Your task to perform on an android device: open the mobile data screen to see how much data has been used Image 0: 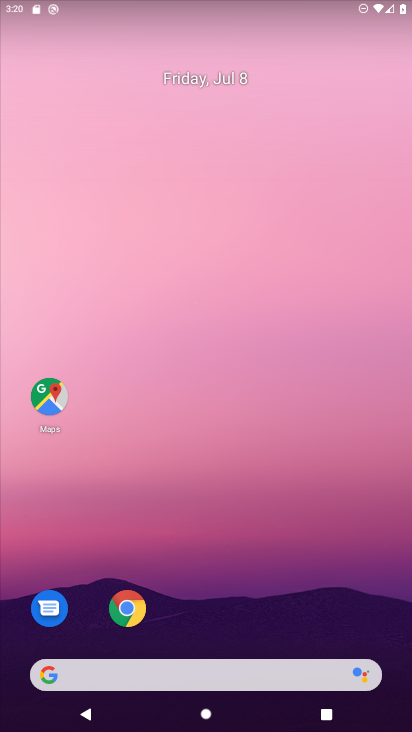
Step 0: drag from (223, 614) to (193, 123)
Your task to perform on an android device: open the mobile data screen to see how much data has been used Image 1: 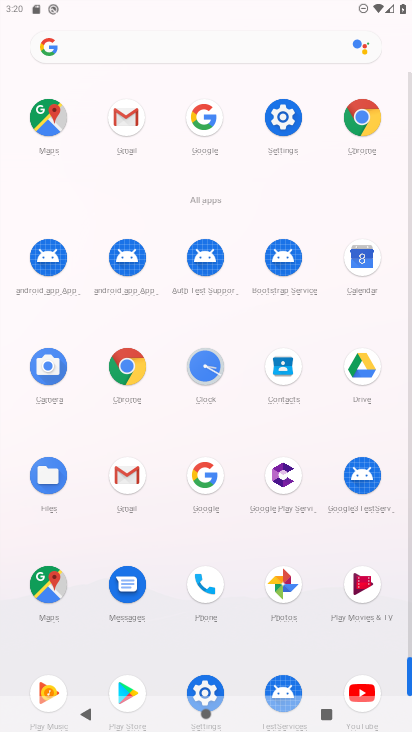
Step 1: drag from (173, 43) to (70, 545)
Your task to perform on an android device: open the mobile data screen to see how much data has been used Image 2: 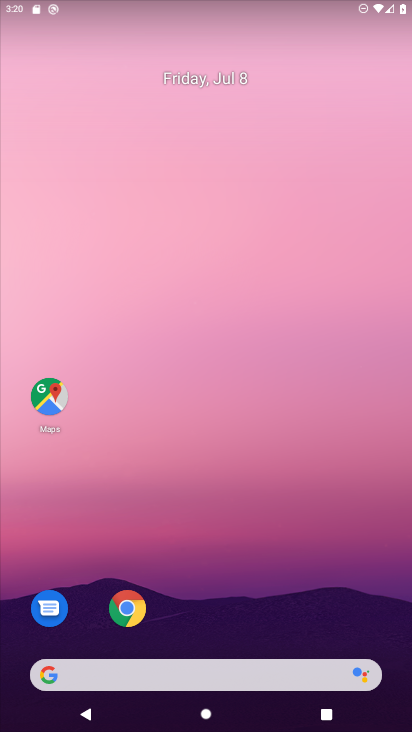
Step 2: drag from (153, 5) to (112, 556)
Your task to perform on an android device: open the mobile data screen to see how much data has been used Image 3: 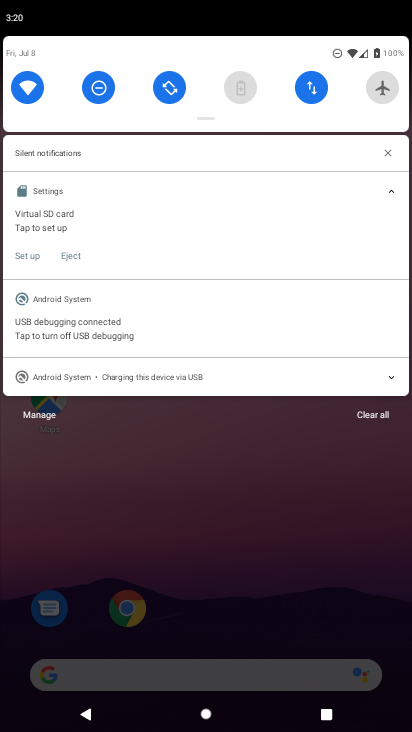
Step 3: click (308, 86)
Your task to perform on an android device: open the mobile data screen to see how much data has been used Image 4: 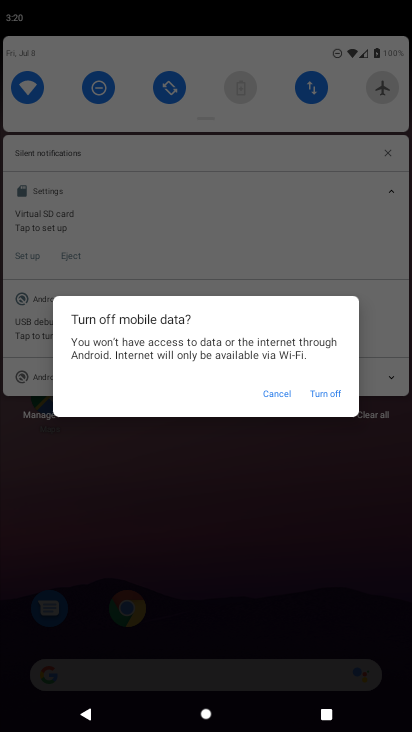
Step 4: click (272, 398)
Your task to perform on an android device: open the mobile data screen to see how much data has been used Image 5: 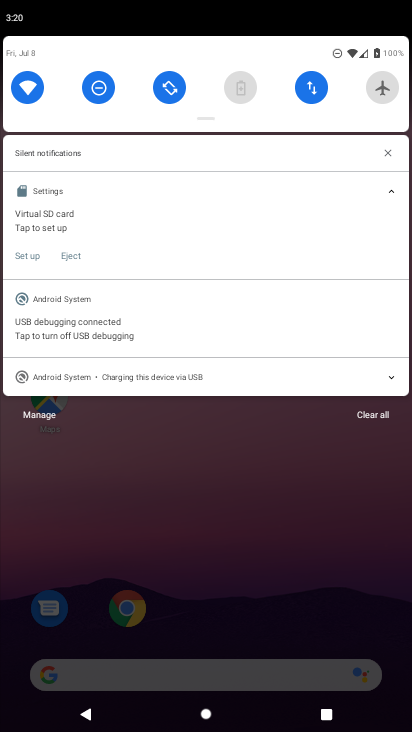
Step 5: click (315, 76)
Your task to perform on an android device: open the mobile data screen to see how much data has been used Image 6: 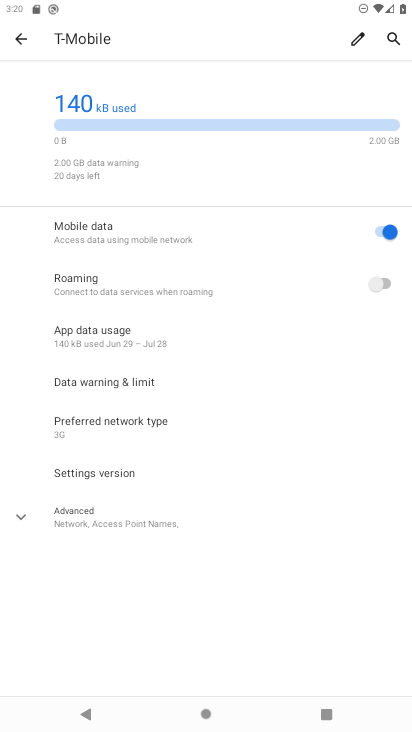
Step 6: task complete